Your task to perform on an android device: Open accessibility settings Image 0: 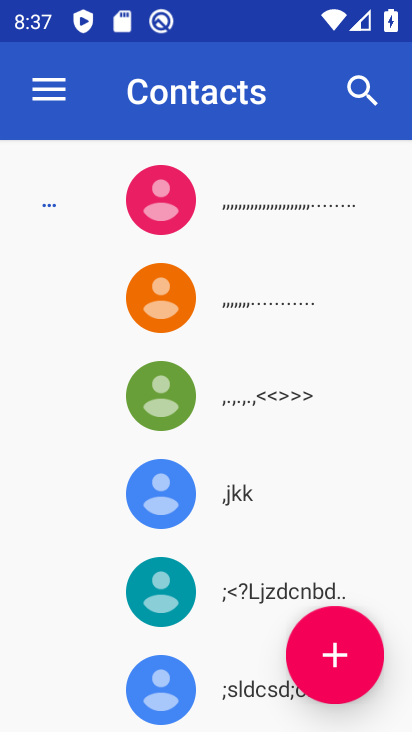
Step 0: press home button
Your task to perform on an android device: Open accessibility settings Image 1: 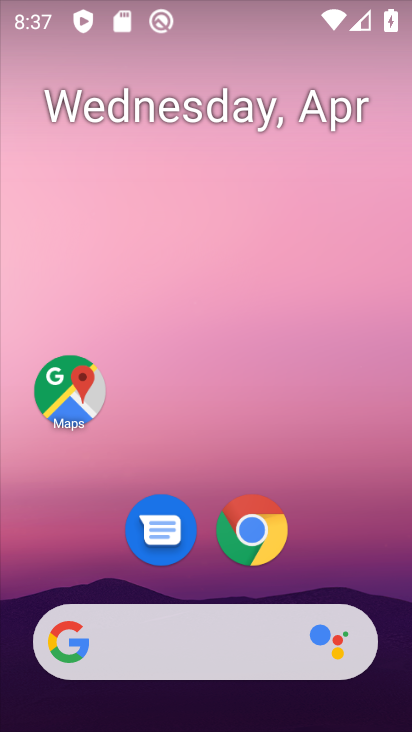
Step 1: click (256, 535)
Your task to perform on an android device: Open accessibility settings Image 2: 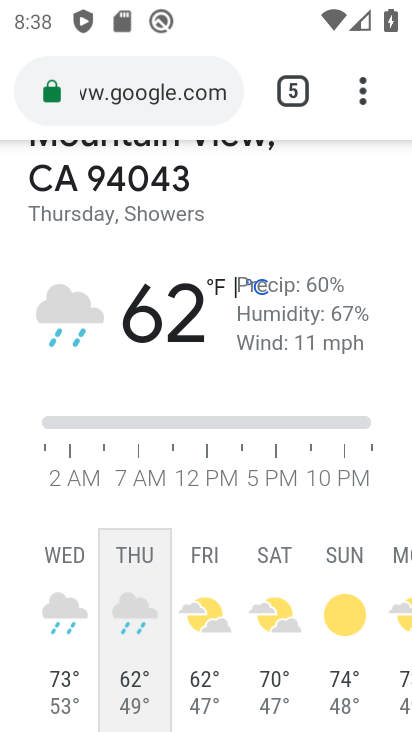
Step 2: click (348, 94)
Your task to perform on an android device: Open accessibility settings Image 3: 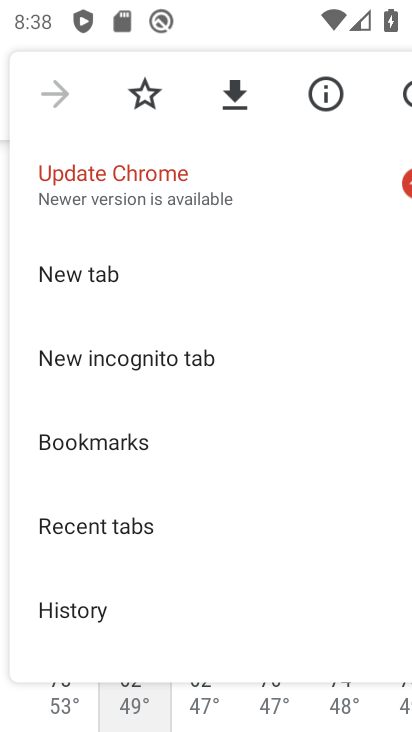
Step 3: drag from (240, 566) to (252, 222)
Your task to perform on an android device: Open accessibility settings Image 4: 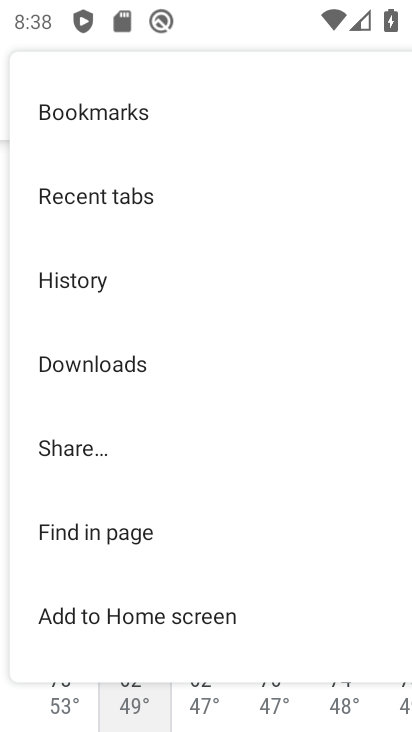
Step 4: drag from (209, 603) to (235, 368)
Your task to perform on an android device: Open accessibility settings Image 5: 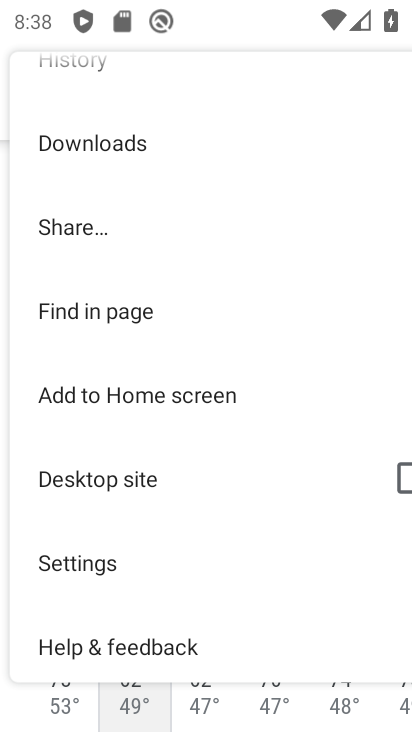
Step 5: click (188, 562)
Your task to perform on an android device: Open accessibility settings Image 6: 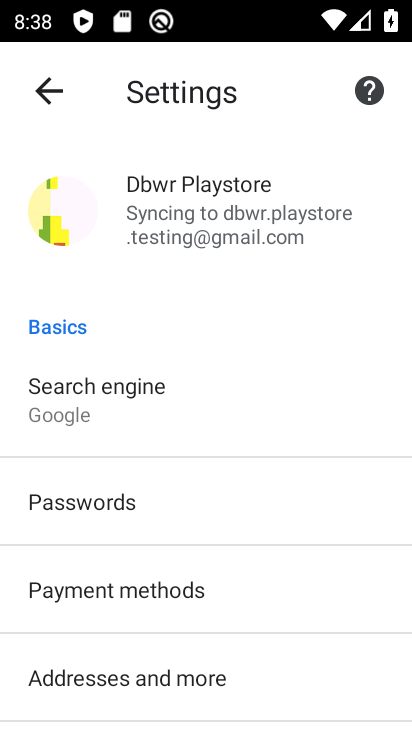
Step 6: drag from (305, 566) to (272, 157)
Your task to perform on an android device: Open accessibility settings Image 7: 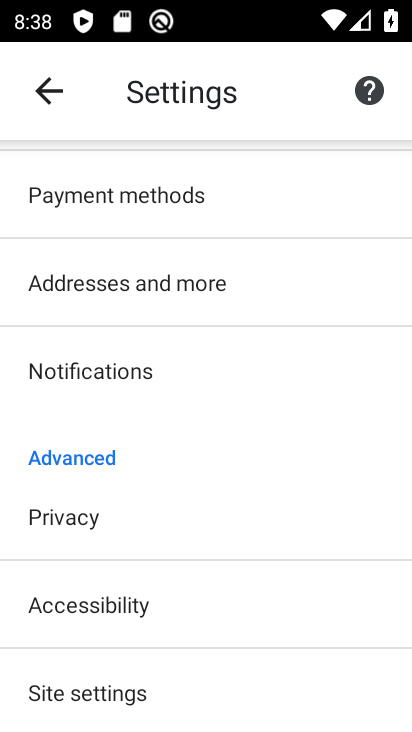
Step 7: click (196, 621)
Your task to perform on an android device: Open accessibility settings Image 8: 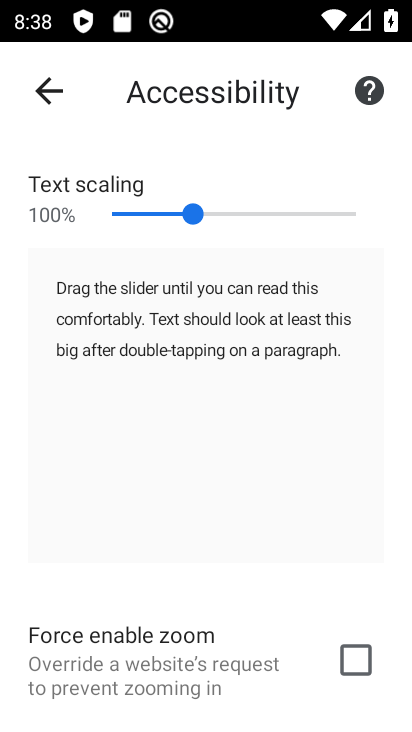
Step 8: task complete